Your task to perform on an android device: visit the assistant section in the google photos Image 0: 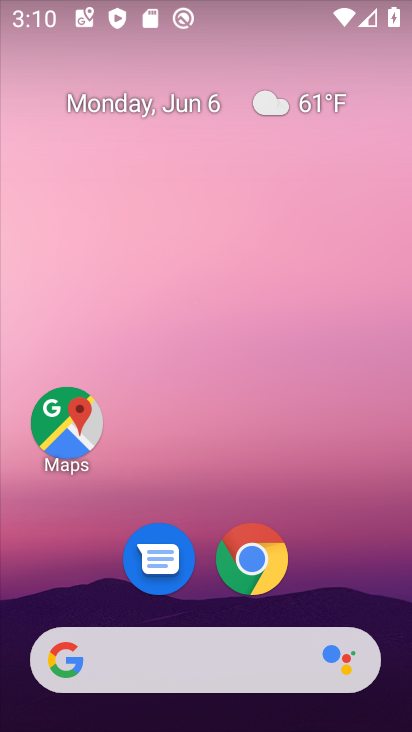
Step 0: drag from (199, 626) to (180, 4)
Your task to perform on an android device: visit the assistant section in the google photos Image 1: 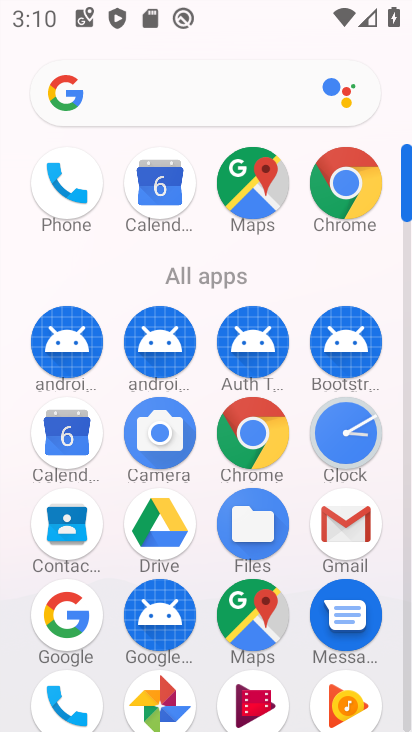
Step 1: click (156, 690)
Your task to perform on an android device: visit the assistant section in the google photos Image 2: 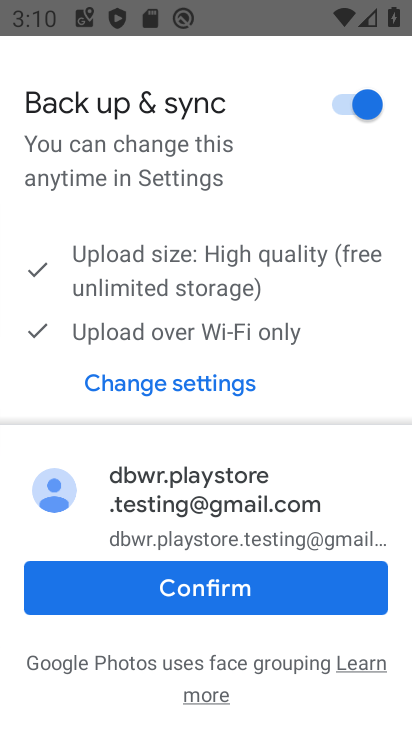
Step 2: click (194, 565)
Your task to perform on an android device: visit the assistant section in the google photos Image 3: 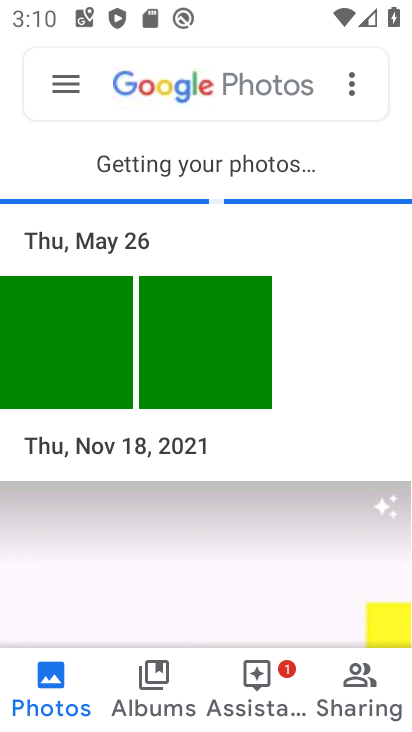
Step 3: click (266, 665)
Your task to perform on an android device: visit the assistant section in the google photos Image 4: 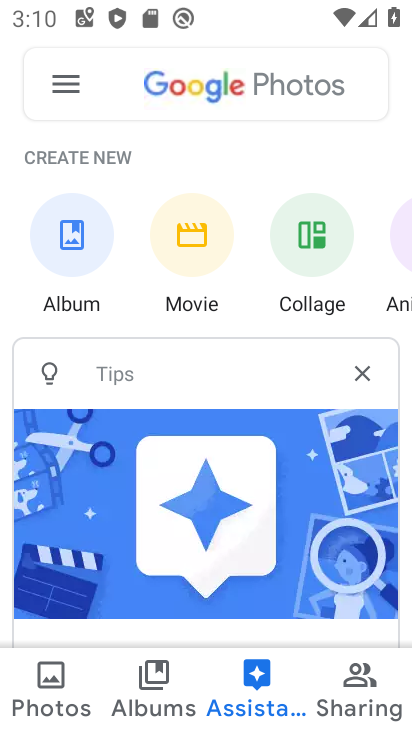
Step 4: task complete